Your task to perform on an android device: check data usage Image 0: 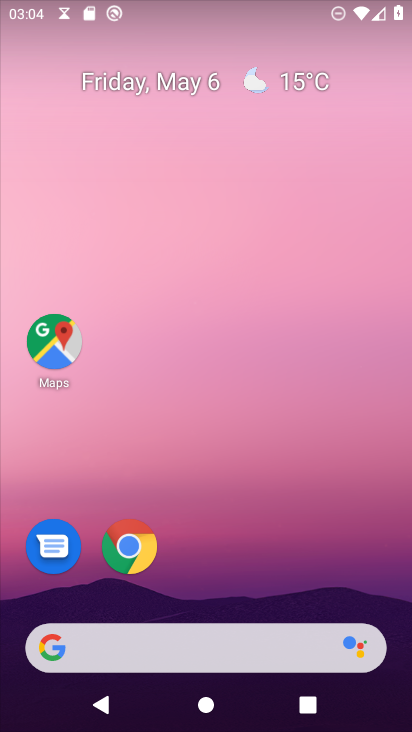
Step 0: drag from (268, 583) to (246, 37)
Your task to perform on an android device: check data usage Image 1: 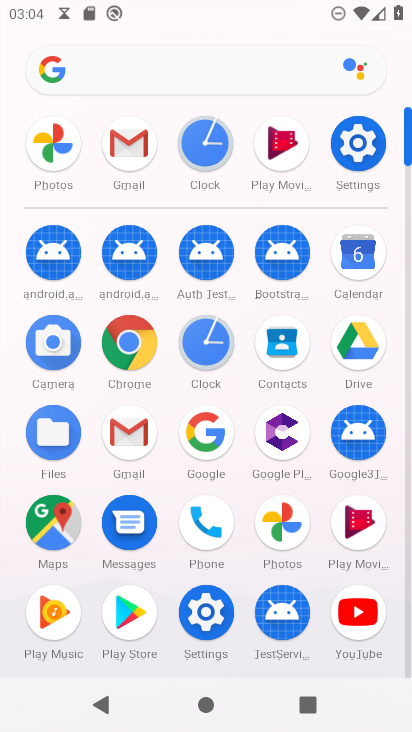
Step 1: click (351, 148)
Your task to perform on an android device: check data usage Image 2: 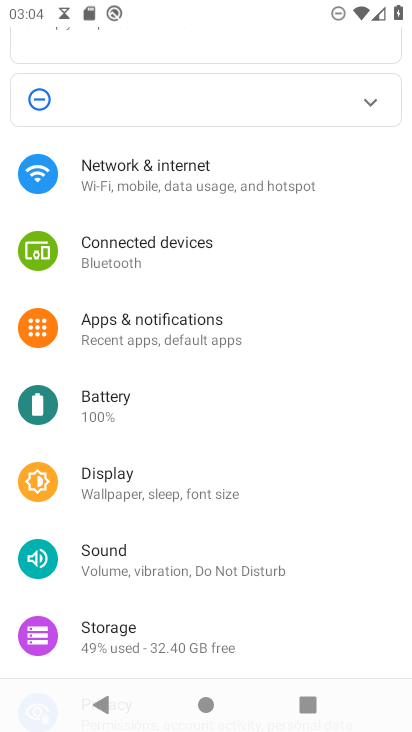
Step 2: click (145, 187)
Your task to perform on an android device: check data usage Image 3: 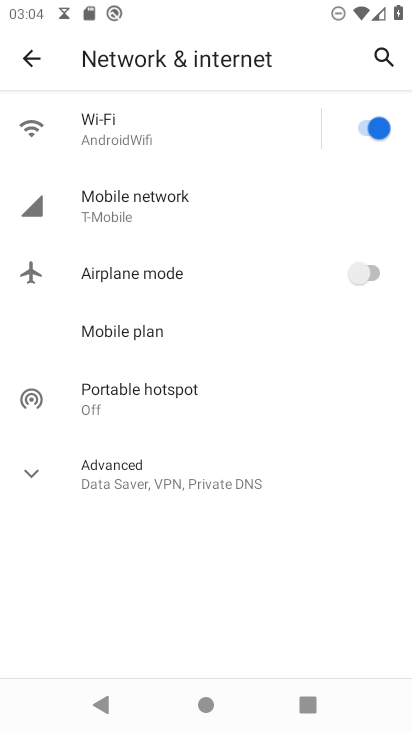
Step 3: click (150, 132)
Your task to perform on an android device: check data usage Image 4: 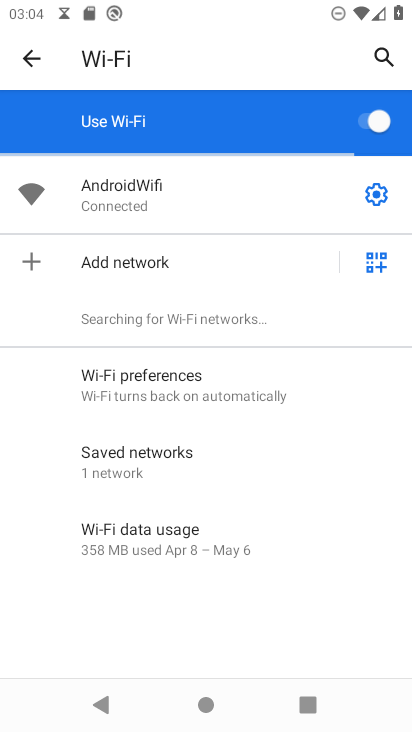
Step 4: click (135, 538)
Your task to perform on an android device: check data usage Image 5: 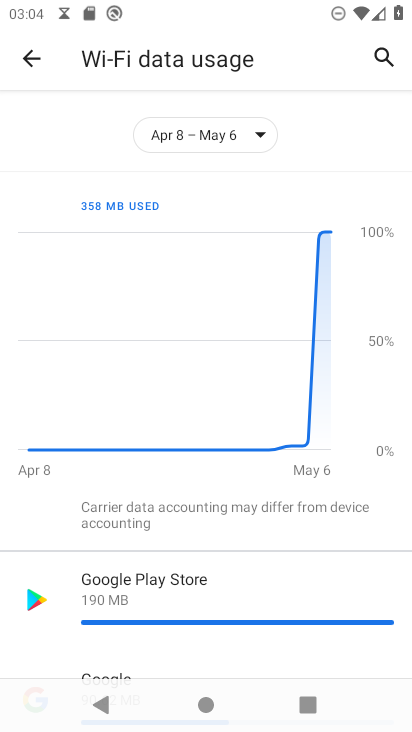
Step 5: task complete